Your task to perform on an android device: Open Yahoo.com Image 0: 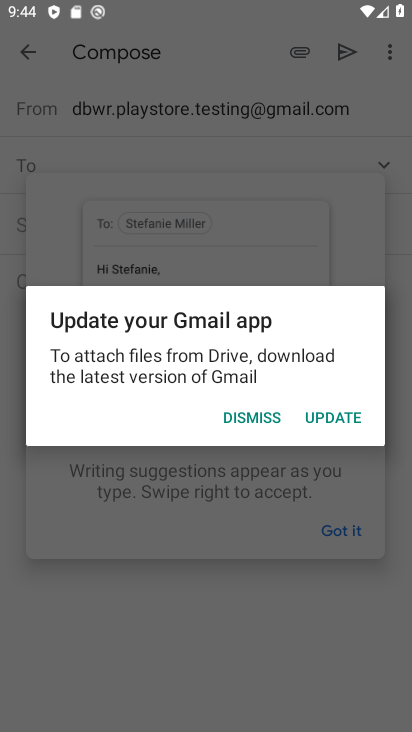
Step 0: press home button
Your task to perform on an android device: Open Yahoo.com Image 1: 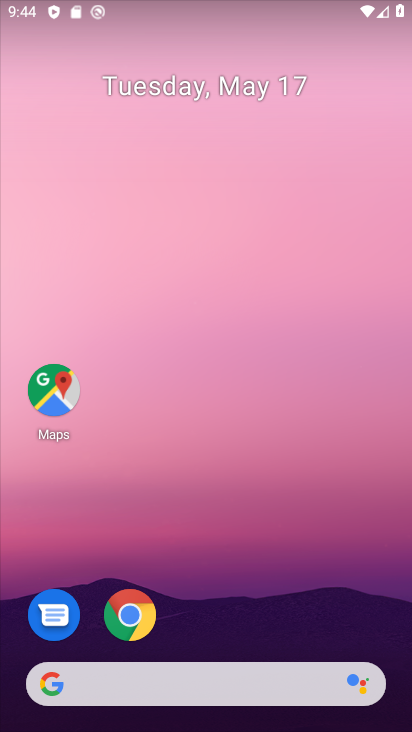
Step 1: click (114, 624)
Your task to perform on an android device: Open Yahoo.com Image 2: 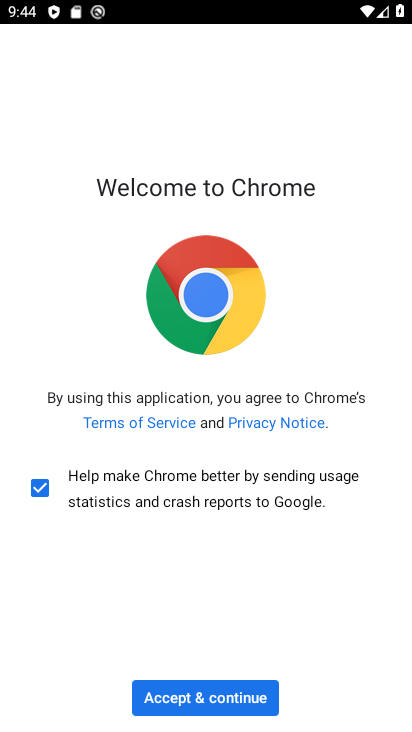
Step 2: click (182, 704)
Your task to perform on an android device: Open Yahoo.com Image 3: 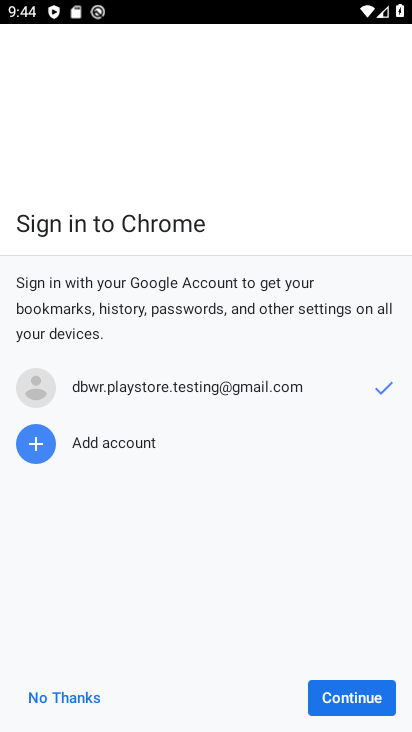
Step 3: click (344, 710)
Your task to perform on an android device: Open Yahoo.com Image 4: 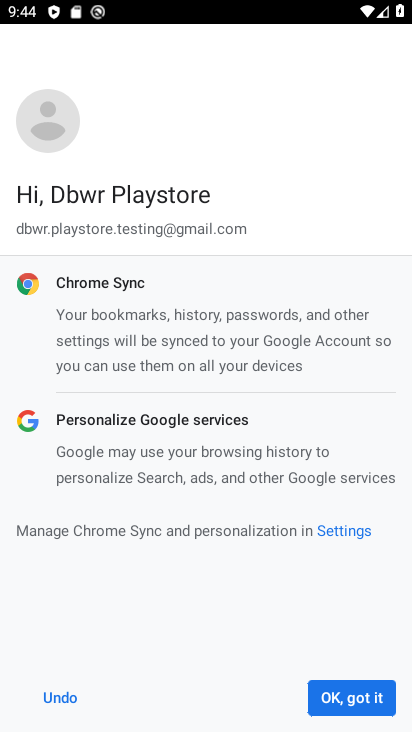
Step 4: click (324, 689)
Your task to perform on an android device: Open Yahoo.com Image 5: 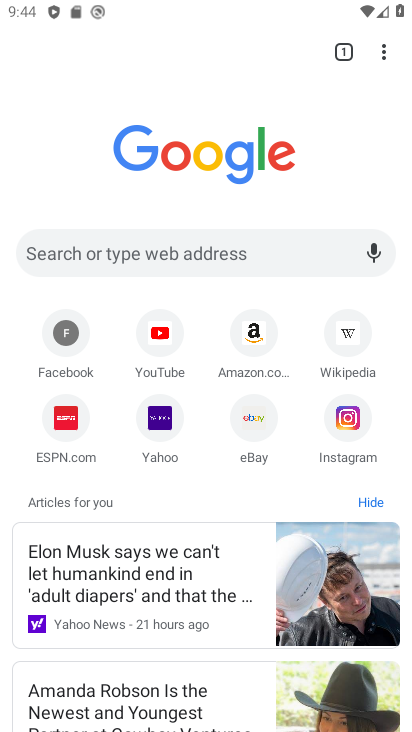
Step 5: click (171, 436)
Your task to perform on an android device: Open Yahoo.com Image 6: 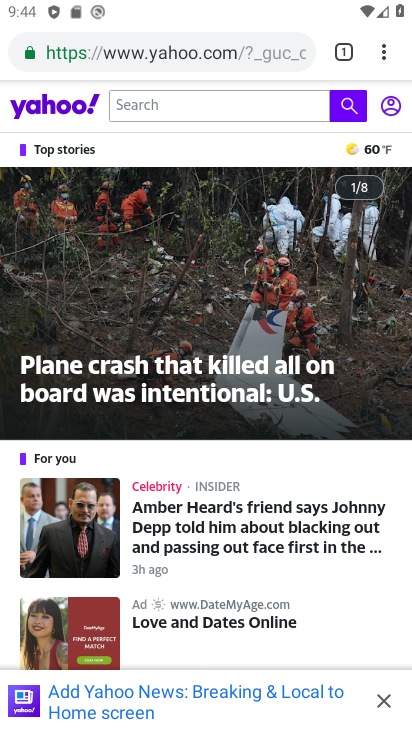
Step 6: task complete